Your task to perform on an android device: change the clock display to digital Image 0: 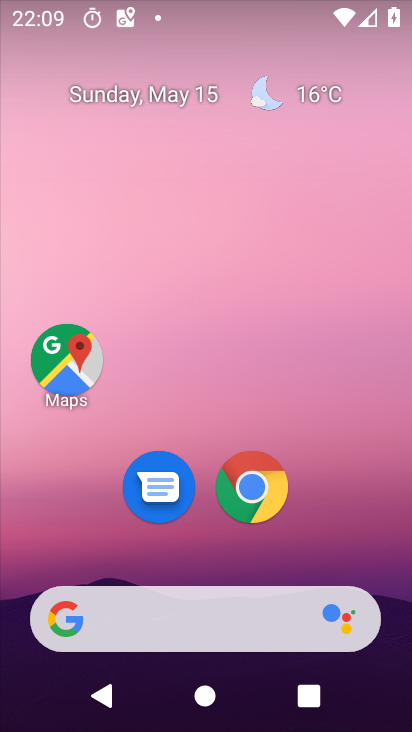
Step 0: drag from (387, 614) to (347, 229)
Your task to perform on an android device: change the clock display to digital Image 1: 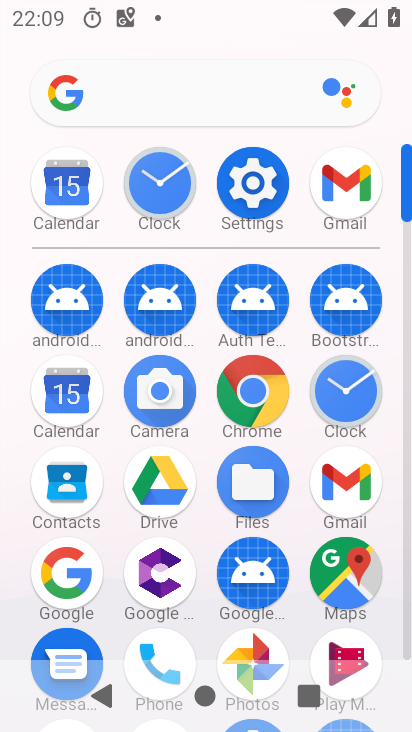
Step 1: click (345, 411)
Your task to perform on an android device: change the clock display to digital Image 2: 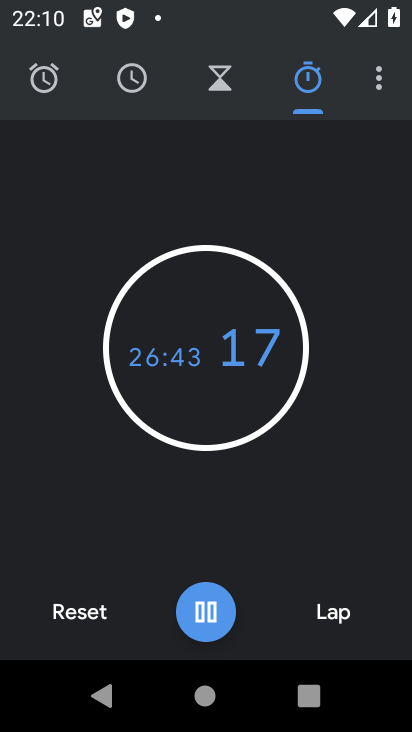
Step 2: click (383, 73)
Your task to perform on an android device: change the clock display to digital Image 3: 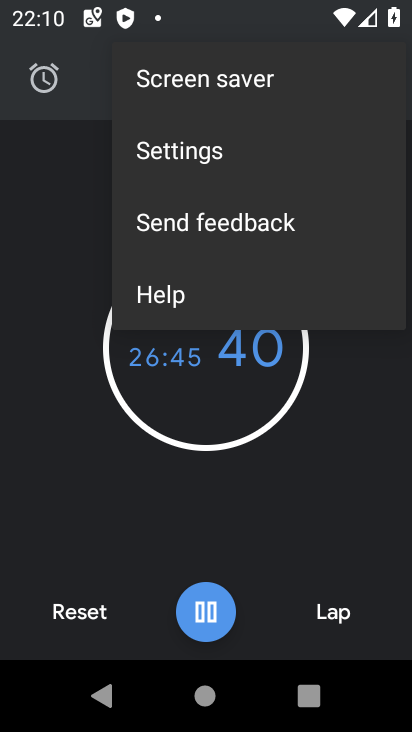
Step 3: click (155, 154)
Your task to perform on an android device: change the clock display to digital Image 4: 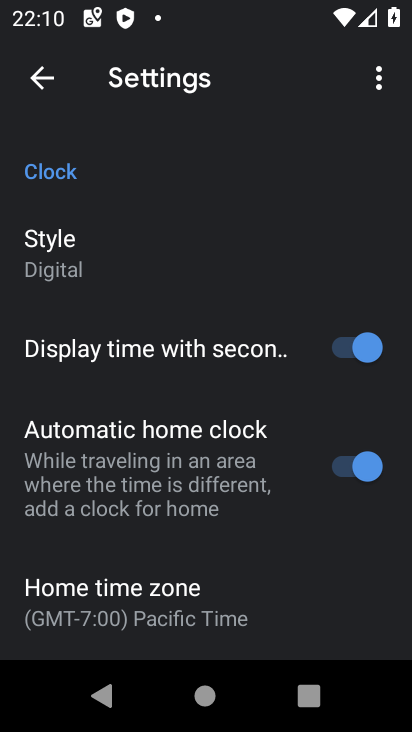
Step 4: click (68, 254)
Your task to perform on an android device: change the clock display to digital Image 5: 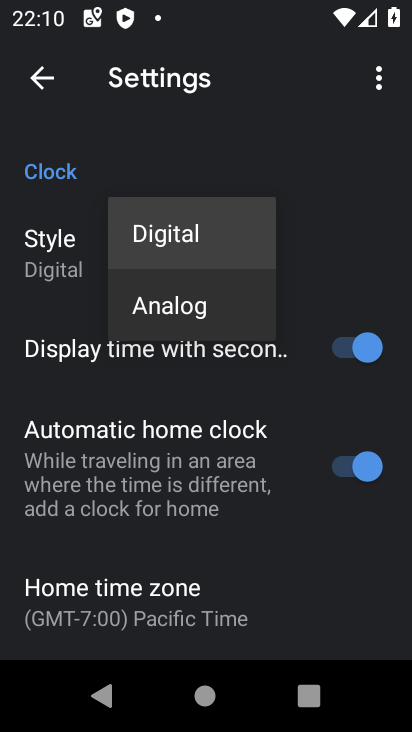
Step 5: task complete